Your task to perform on an android device: Open Chrome and go to the settings page Image 0: 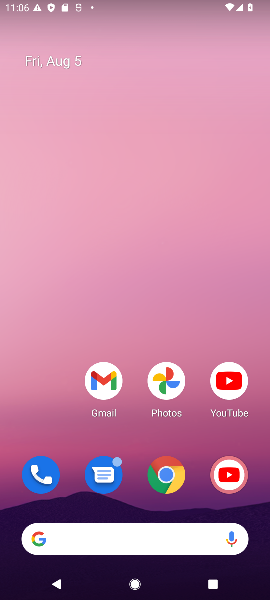
Step 0: click (171, 483)
Your task to perform on an android device: Open Chrome and go to the settings page Image 1: 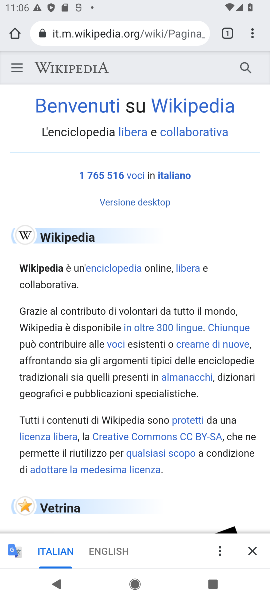
Step 1: click (252, 36)
Your task to perform on an android device: Open Chrome and go to the settings page Image 2: 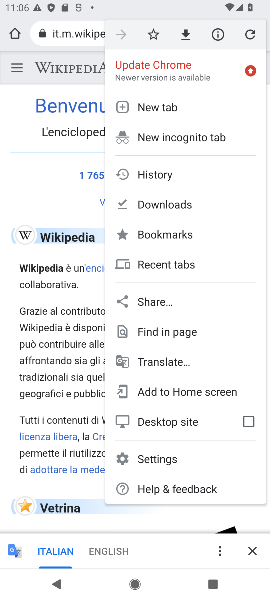
Step 2: click (155, 467)
Your task to perform on an android device: Open Chrome and go to the settings page Image 3: 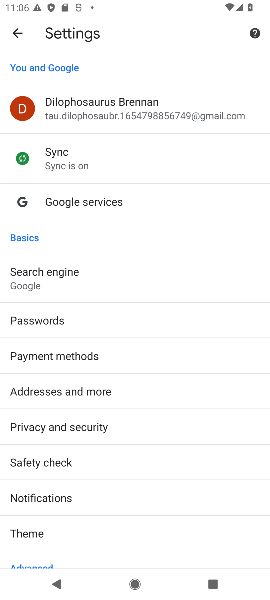
Step 3: task complete